Your task to perform on an android device: empty trash in the gmail app Image 0: 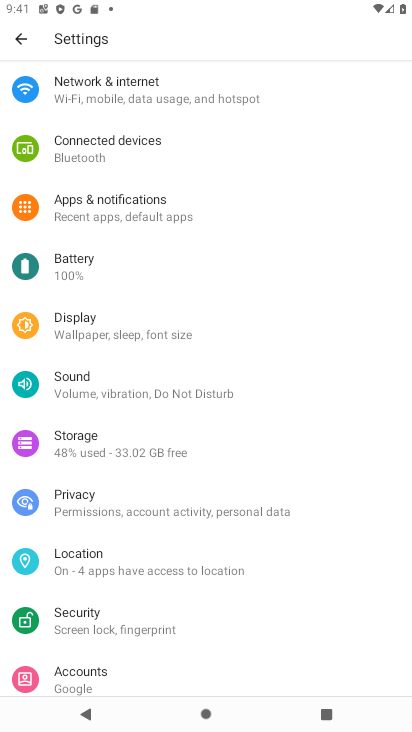
Step 0: press home button
Your task to perform on an android device: empty trash in the gmail app Image 1: 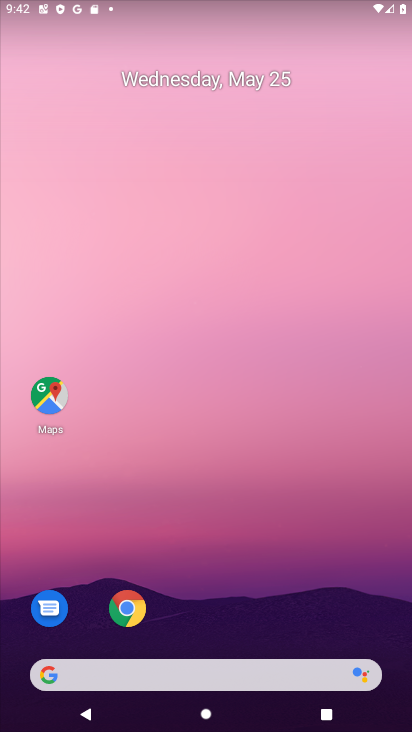
Step 1: drag from (263, 642) to (282, 47)
Your task to perform on an android device: empty trash in the gmail app Image 2: 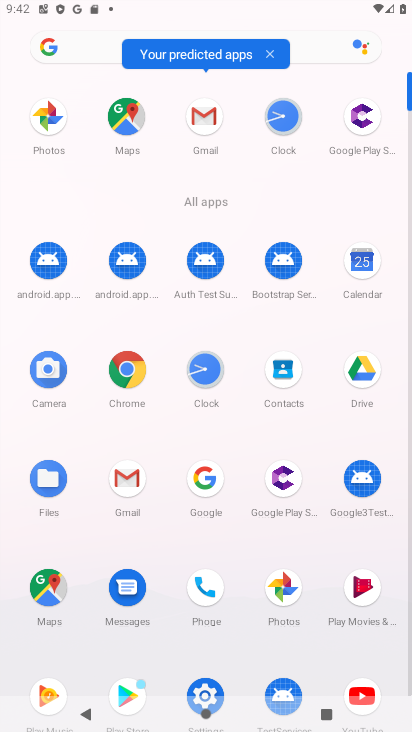
Step 2: click (196, 116)
Your task to perform on an android device: empty trash in the gmail app Image 3: 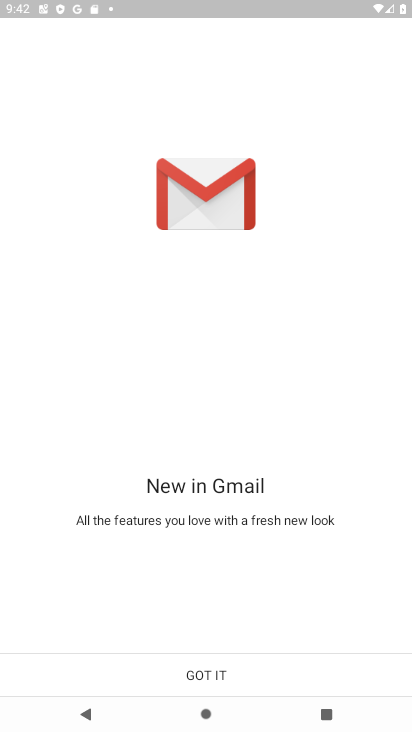
Step 3: click (214, 672)
Your task to perform on an android device: empty trash in the gmail app Image 4: 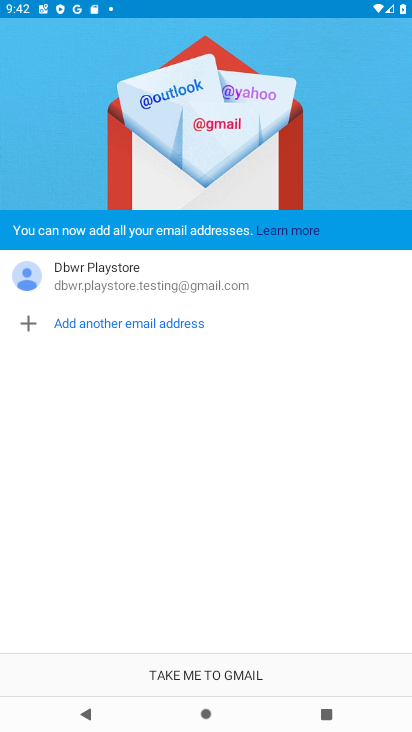
Step 4: click (210, 679)
Your task to perform on an android device: empty trash in the gmail app Image 5: 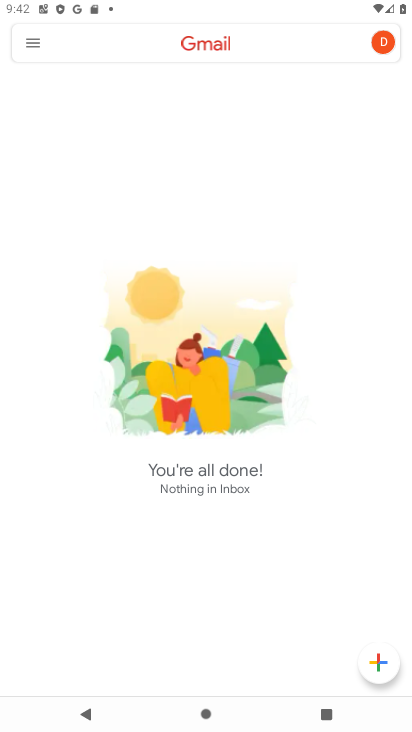
Step 5: click (29, 39)
Your task to perform on an android device: empty trash in the gmail app Image 6: 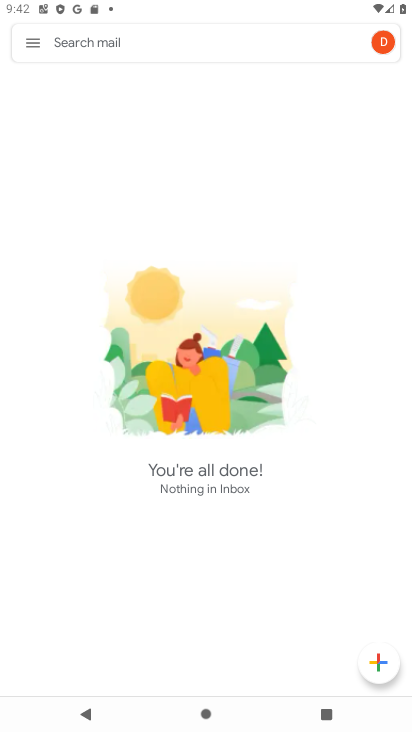
Step 6: click (34, 46)
Your task to perform on an android device: empty trash in the gmail app Image 7: 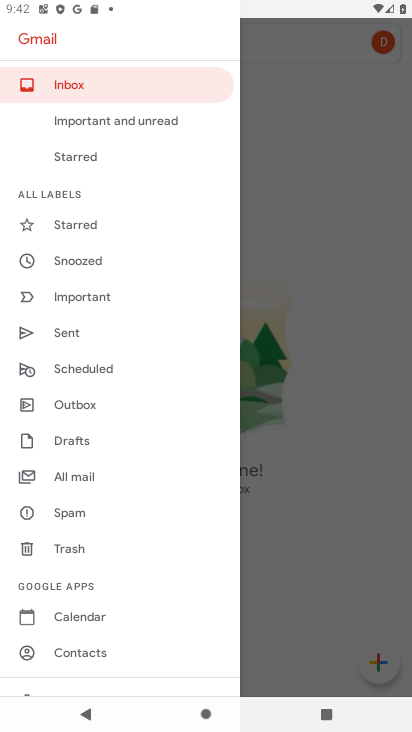
Step 7: click (81, 547)
Your task to perform on an android device: empty trash in the gmail app Image 8: 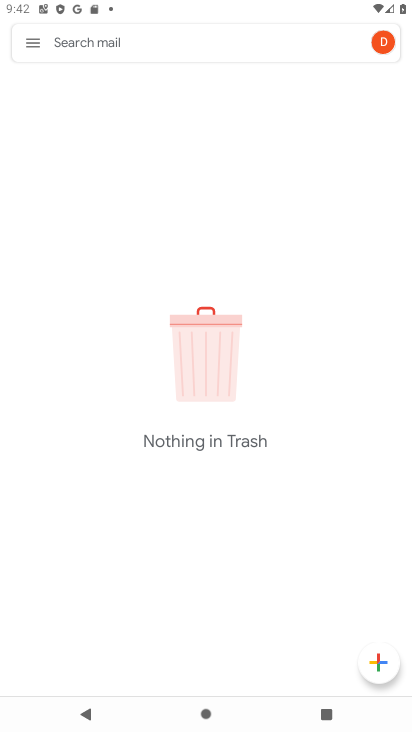
Step 8: task complete